Your task to perform on an android device: move a message to another label in the gmail app Image 0: 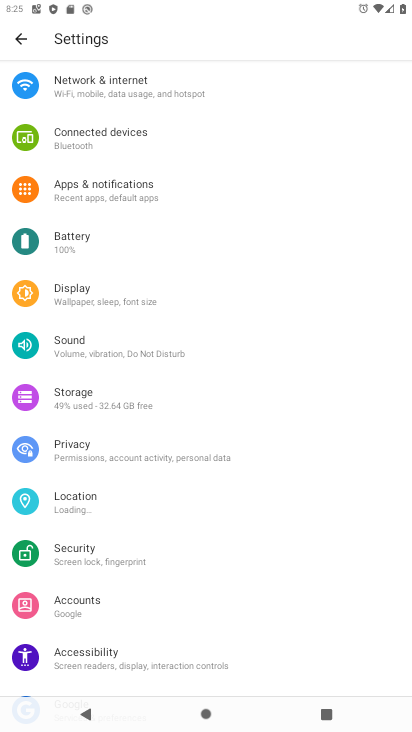
Step 0: press home button
Your task to perform on an android device: move a message to another label in the gmail app Image 1: 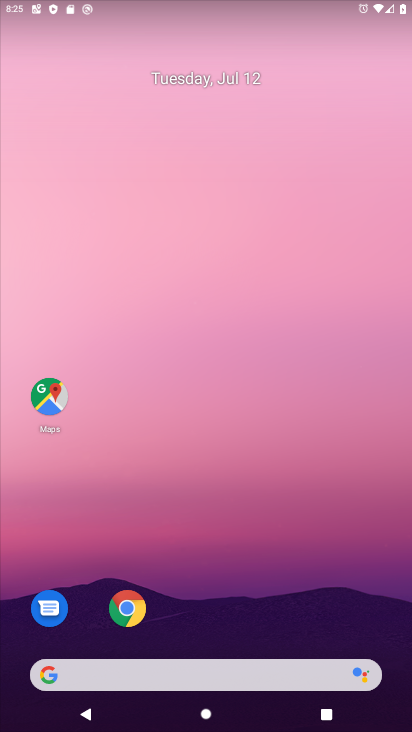
Step 1: drag from (231, 558) to (230, 1)
Your task to perform on an android device: move a message to another label in the gmail app Image 2: 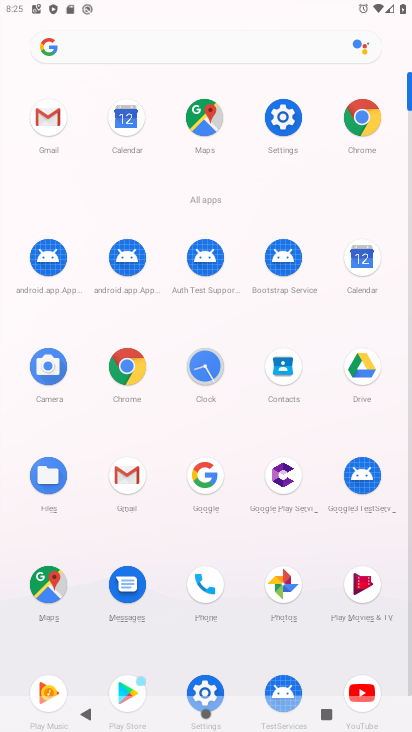
Step 2: click (42, 116)
Your task to perform on an android device: move a message to another label in the gmail app Image 3: 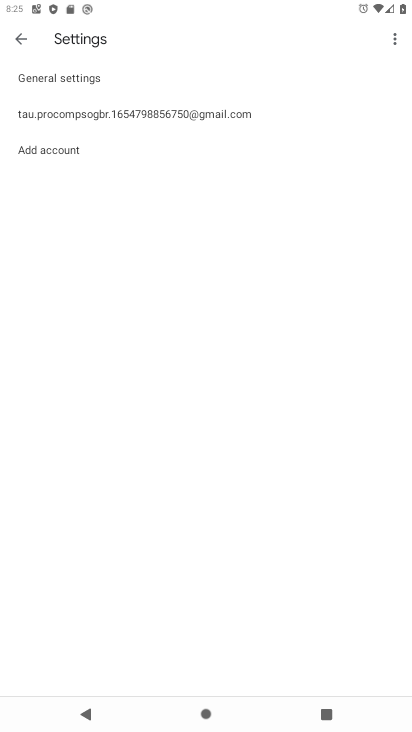
Step 3: click (18, 34)
Your task to perform on an android device: move a message to another label in the gmail app Image 4: 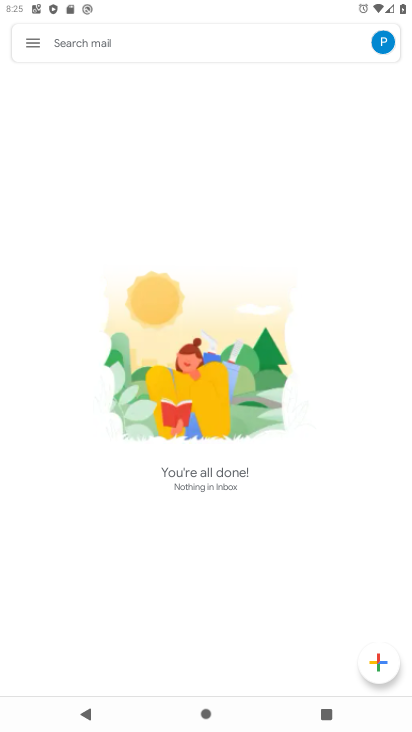
Step 4: click (24, 38)
Your task to perform on an android device: move a message to another label in the gmail app Image 5: 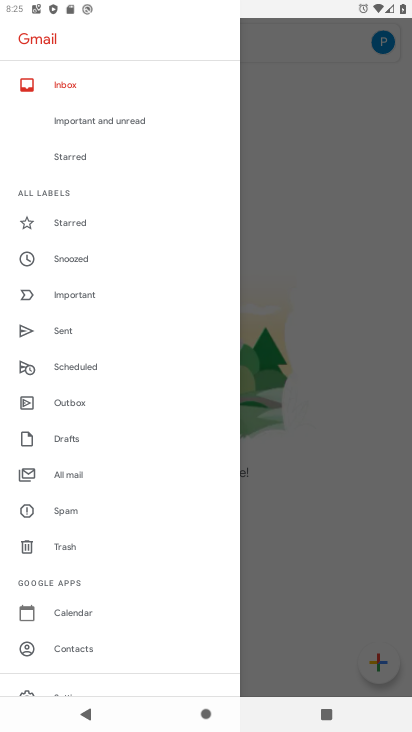
Step 5: click (77, 469)
Your task to perform on an android device: move a message to another label in the gmail app Image 6: 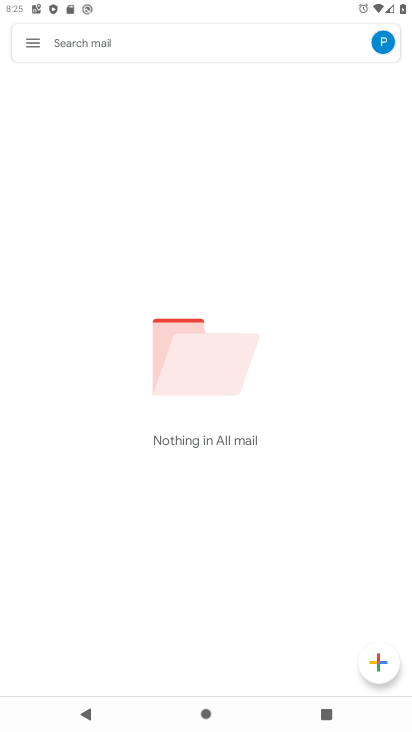
Step 6: task complete